Your task to perform on an android device: Check the weather Image 0: 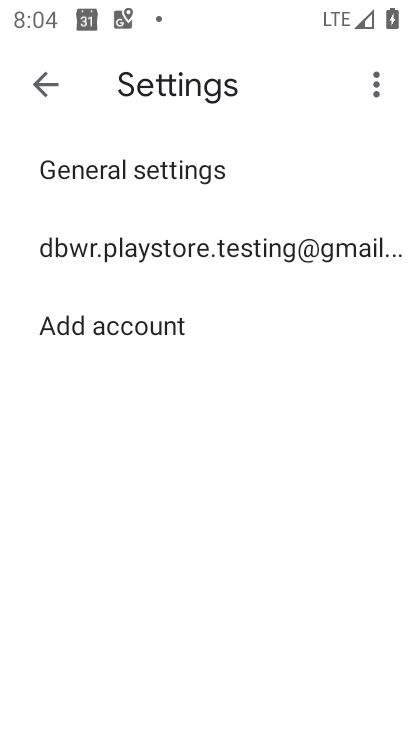
Step 0: press home button
Your task to perform on an android device: Check the weather Image 1: 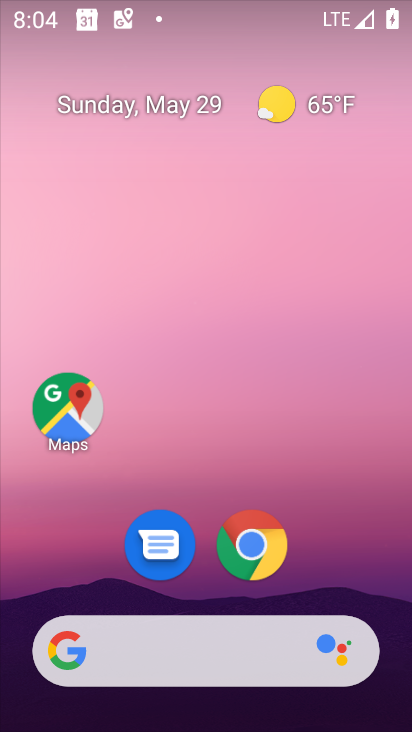
Step 1: click (262, 551)
Your task to perform on an android device: Check the weather Image 2: 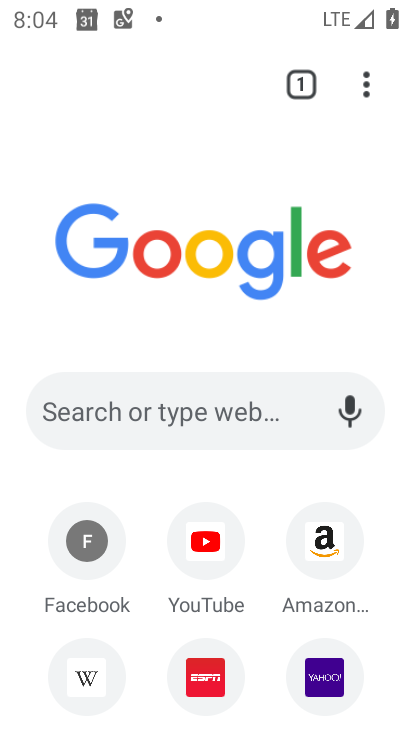
Step 2: click (150, 411)
Your task to perform on an android device: Check the weather Image 3: 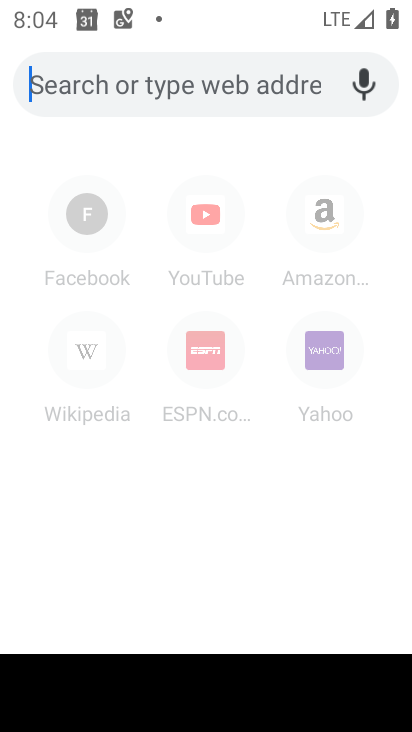
Step 3: type "weather"
Your task to perform on an android device: Check the weather Image 4: 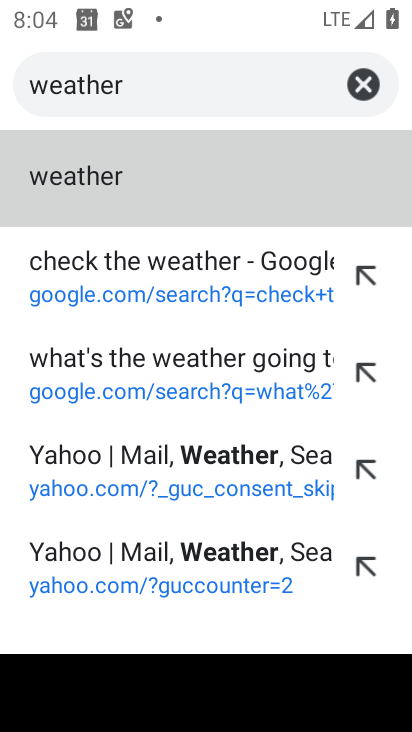
Step 4: click (237, 210)
Your task to perform on an android device: Check the weather Image 5: 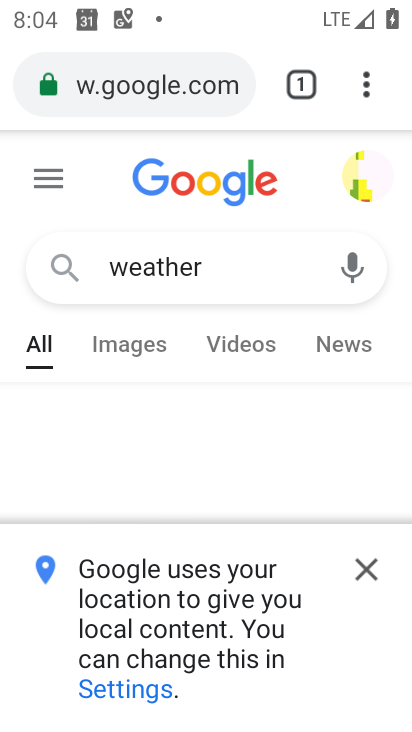
Step 5: task complete